Your task to perform on an android device: Open battery settings Image 0: 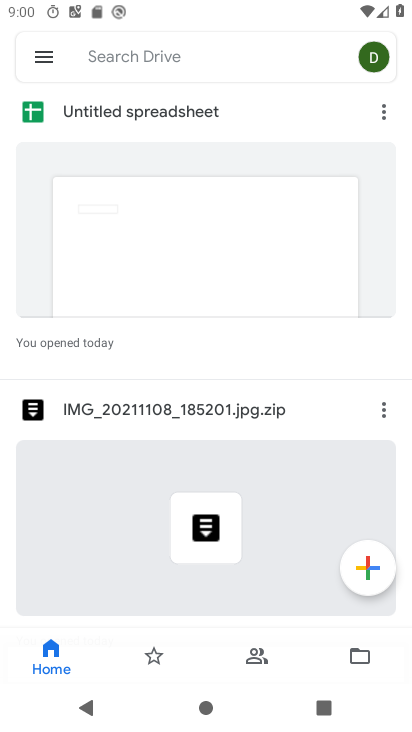
Step 0: press home button
Your task to perform on an android device: Open battery settings Image 1: 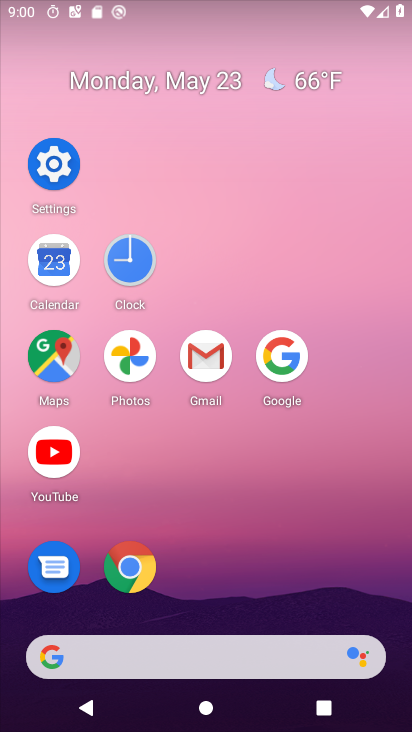
Step 1: click (64, 162)
Your task to perform on an android device: Open battery settings Image 2: 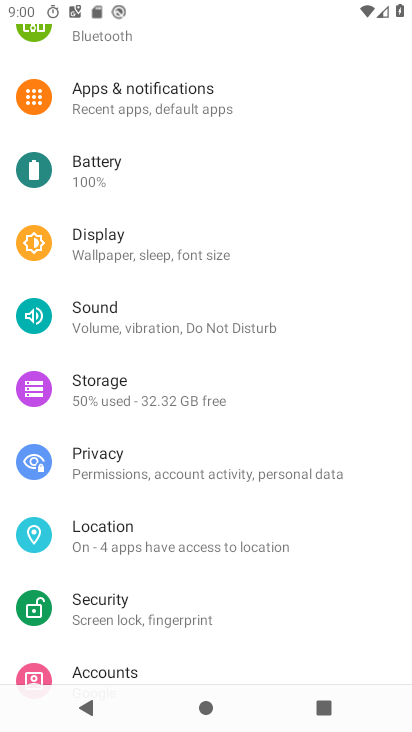
Step 2: click (103, 183)
Your task to perform on an android device: Open battery settings Image 3: 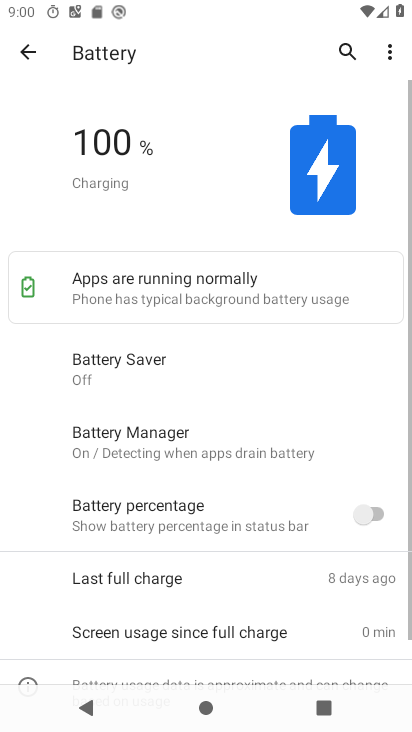
Step 3: task complete